Your task to perform on an android device: What is the recent news? Image 0: 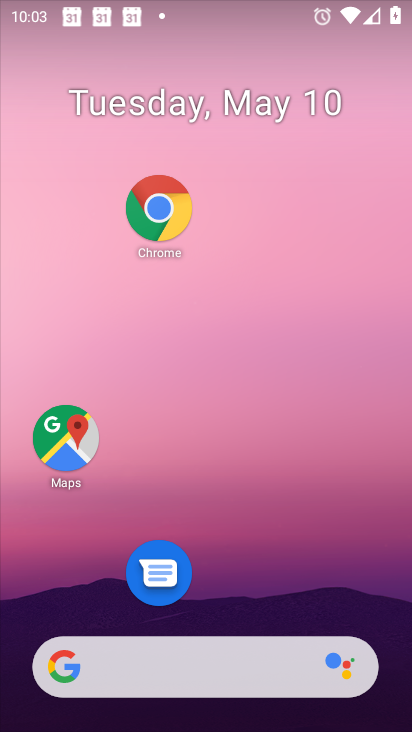
Step 0: drag from (330, 681) to (342, 323)
Your task to perform on an android device: What is the recent news? Image 1: 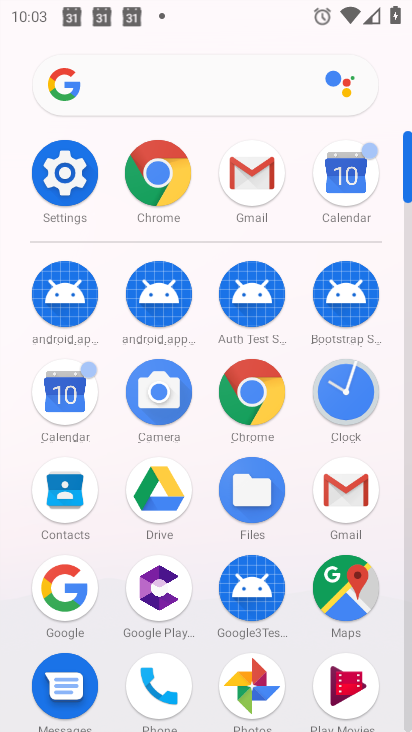
Step 1: click (221, 104)
Your task to perform on an android device: What is the recent news? Image 2: 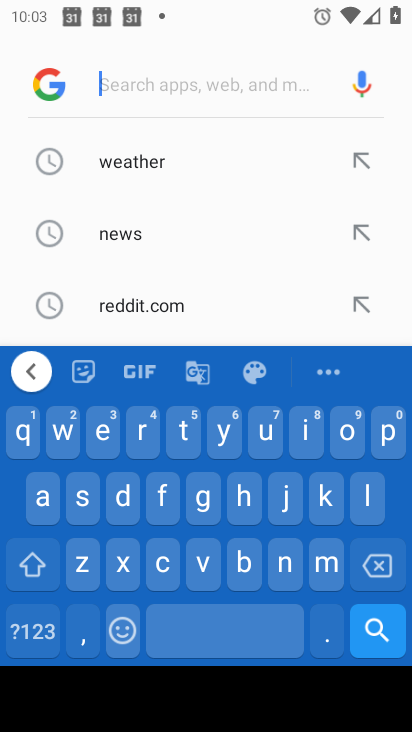
Step 2: click (139, 436)
Your task to perform on an android device: What is the recent news? Image 3: 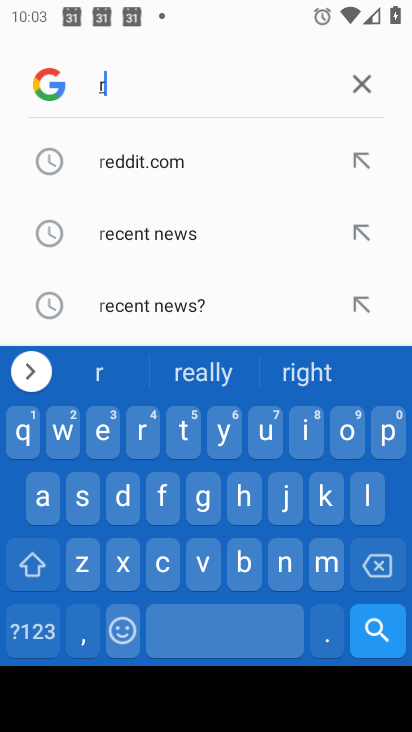
Step 3: click (169, 241)
Your task to perform on an android device: What is the recent news? Image 4: 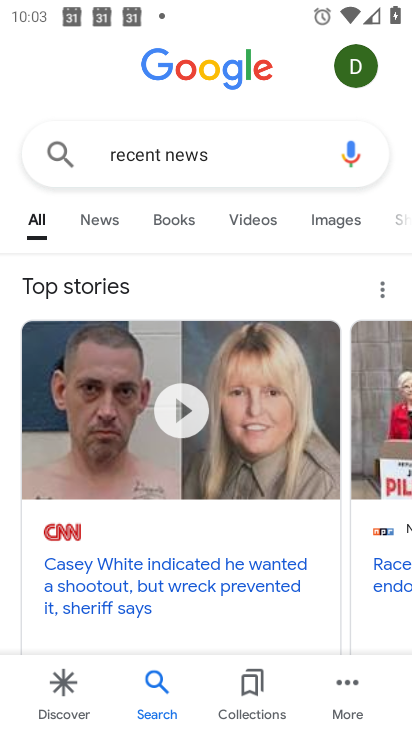
Step 4: task complete